Your task to perform on an android device: Show me recent news Image 0: 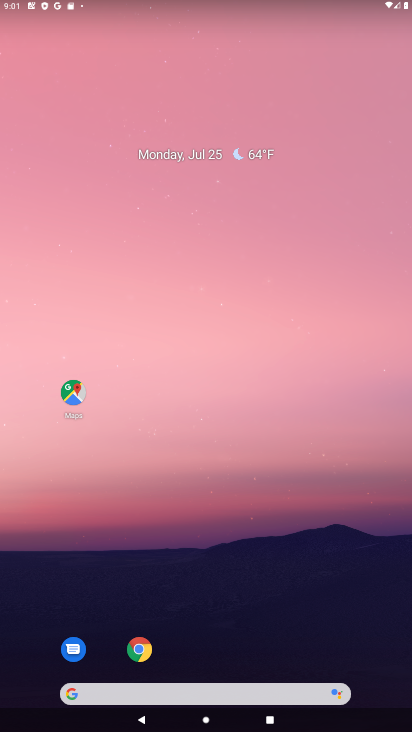
Step 0: drag from (8, 264) to (407, 322)
Your task to perform on an android device: Show me recent news Image 1: 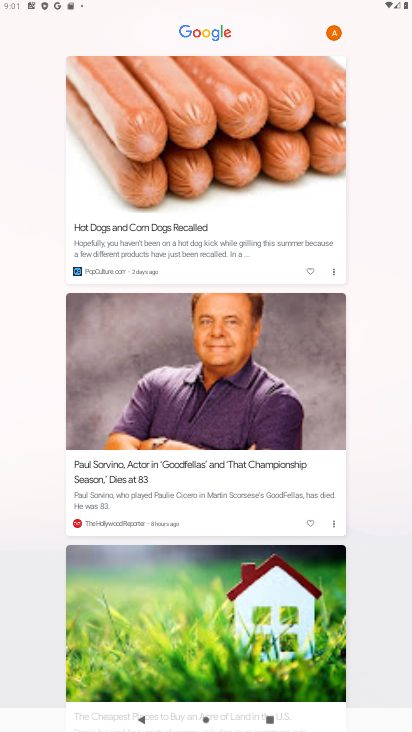
Step 1: task complete